Your task to perform on an android device: Go to Google Image 0: 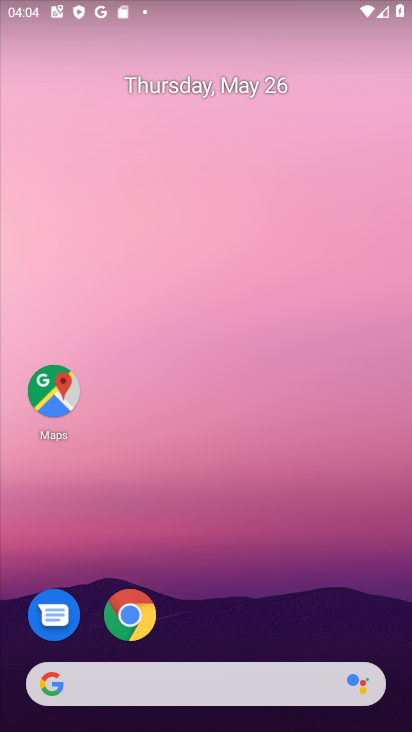
Step 0: click (148, 703)
Your task to perform on an android device: Go to Google Image 1: 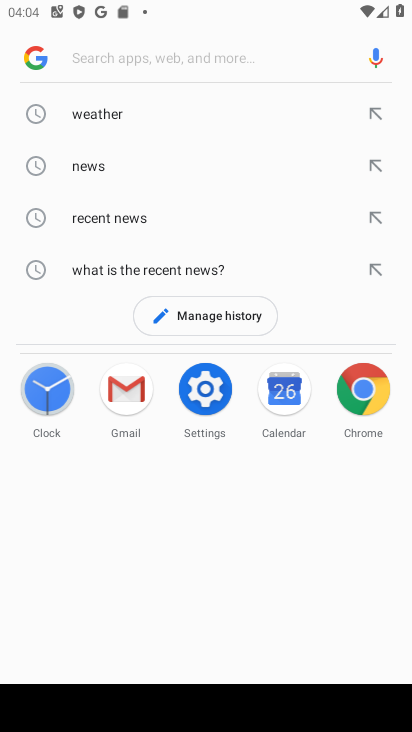
Step 1: task complete